Your task to perform on an android device: Open eBay Image 0: 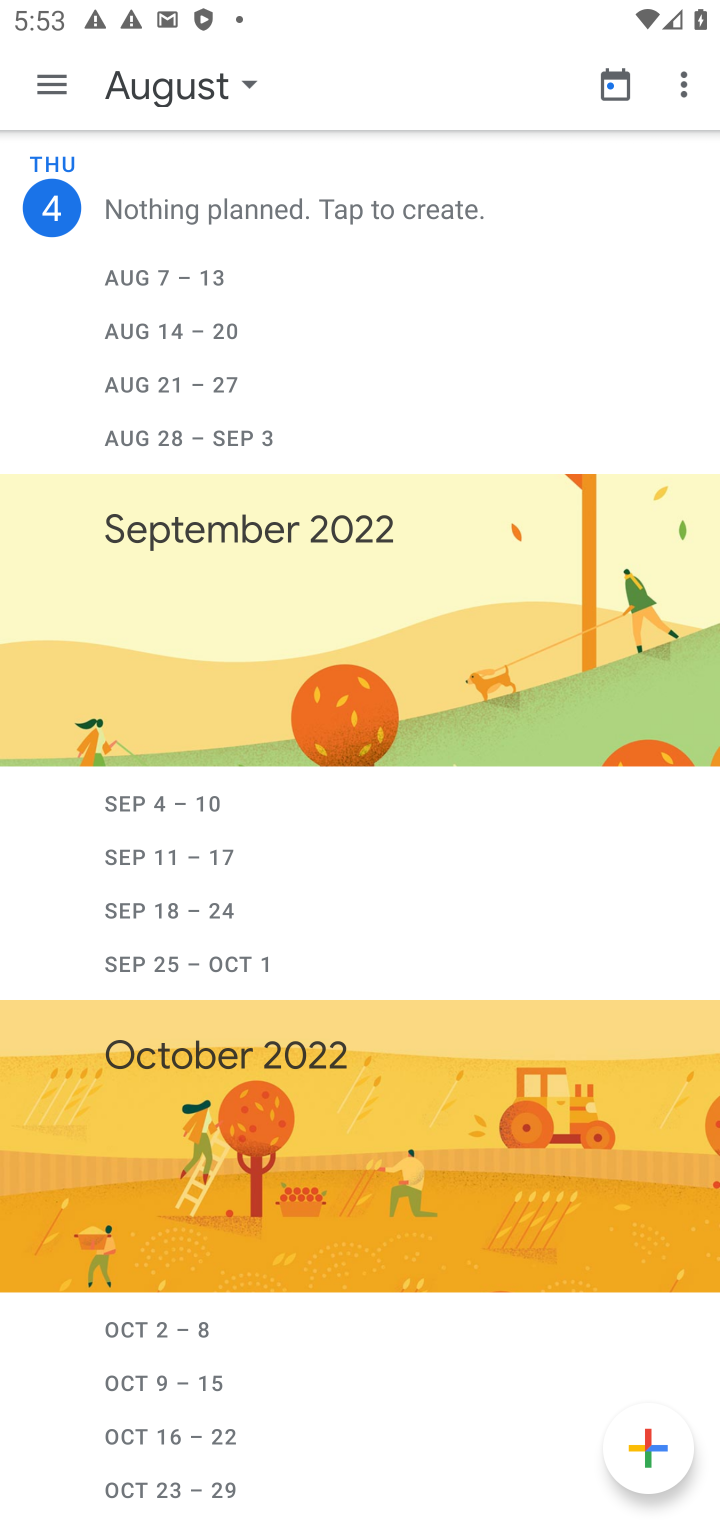
Step 0: press back button
Your task to perform on an android device: Open eBay Image 1: 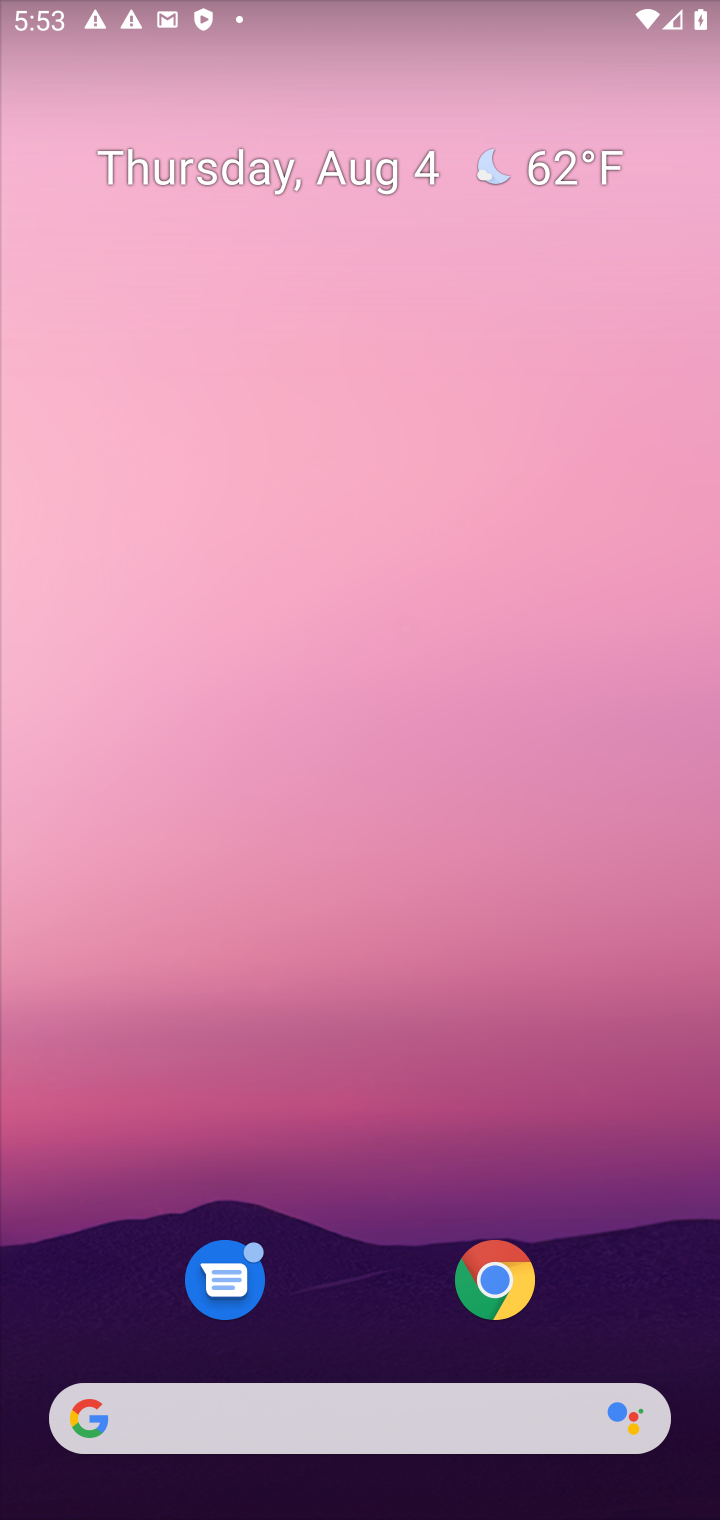
Step 1: click (518, 1266)
Your task to perform on an android device: Open eBay Image 2: 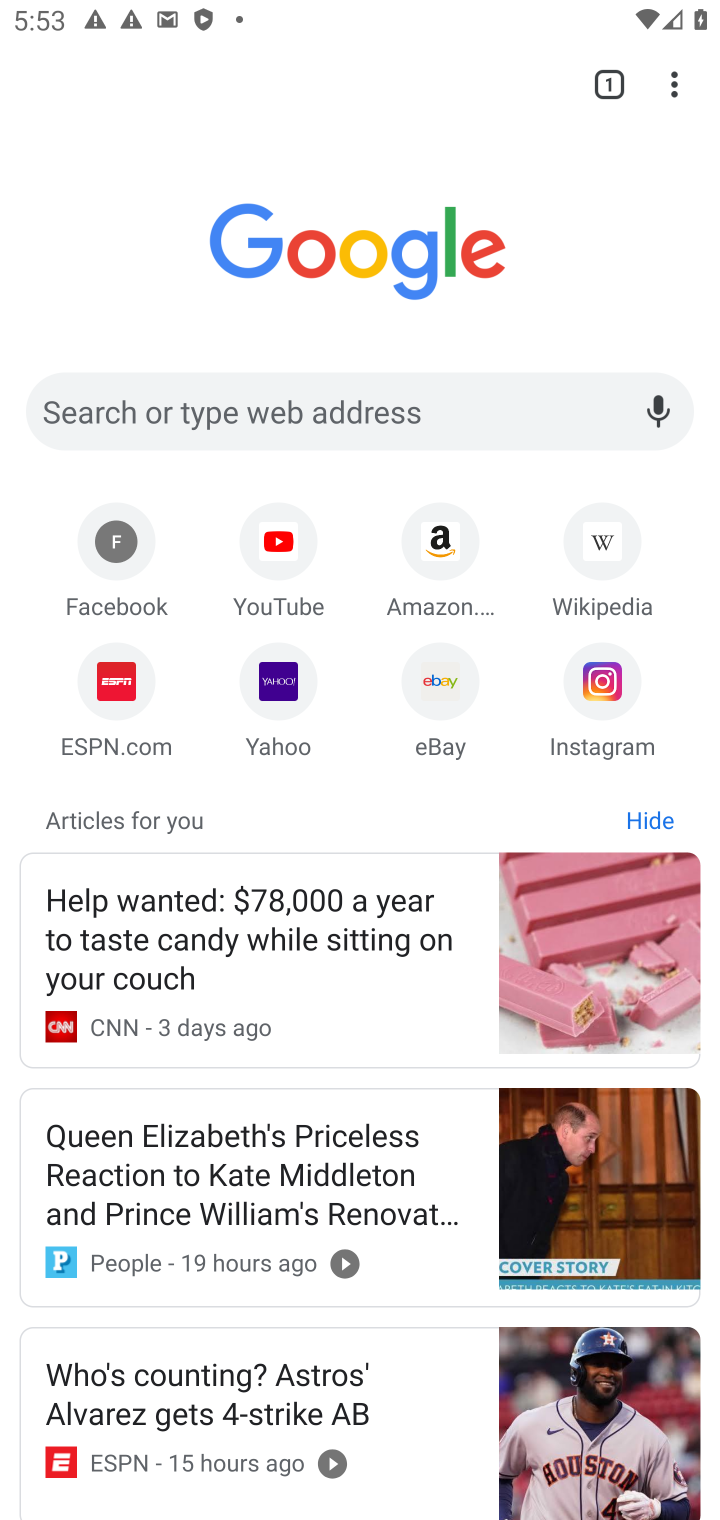
Step 2: click (424, 667)
Your task to perform on an android device: Open eBay Image 3: 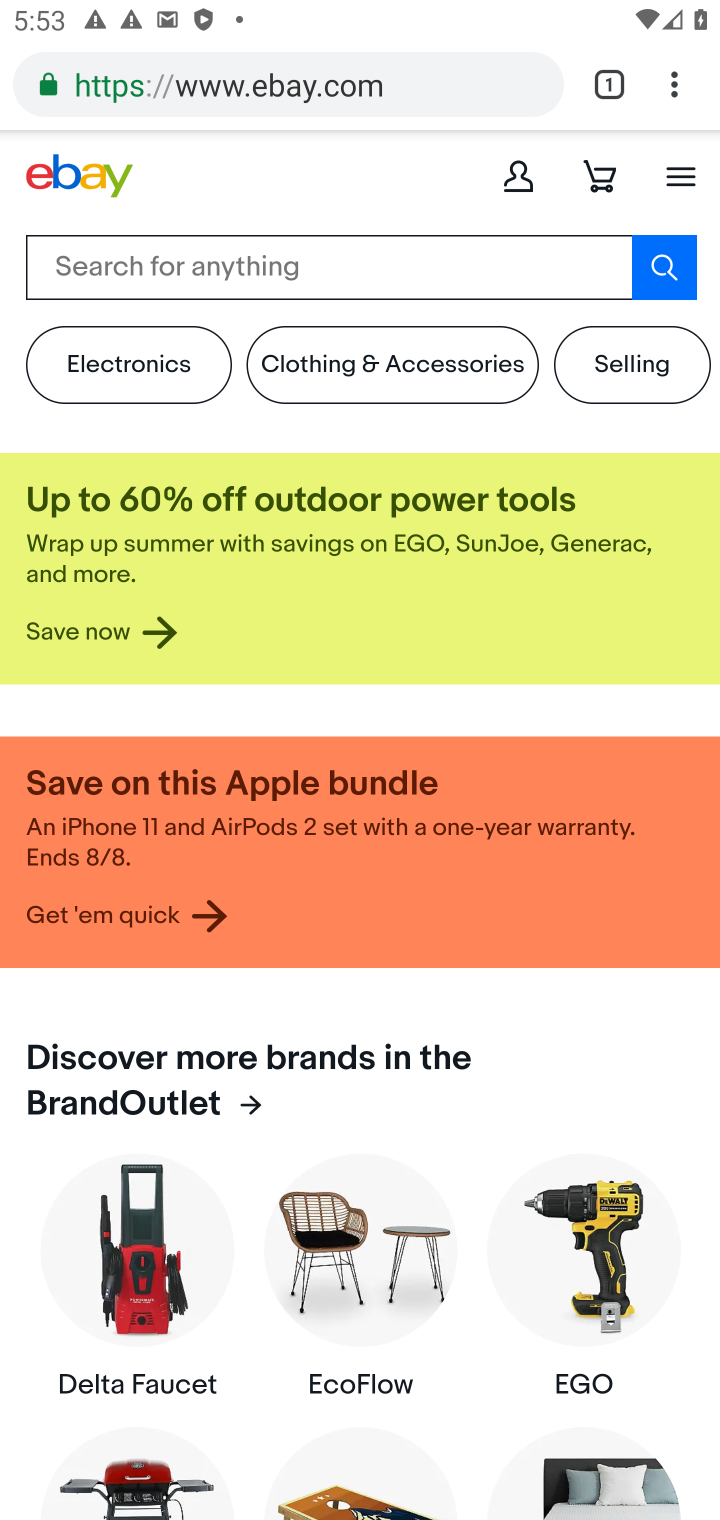
Step 3: task complete